Your task to perform on an android device: turn smart compose on in the gmail app Image 0: 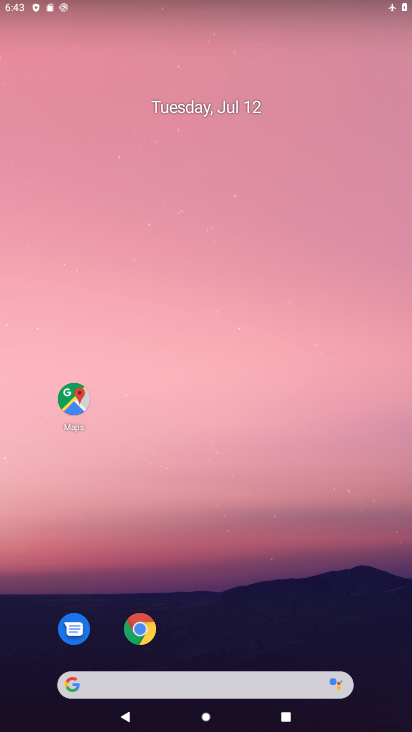
Step 0: drag from (219, 551) to (152, 80)
Your task to perform on an android device: turn smart compose on in the gmail app Image 1: 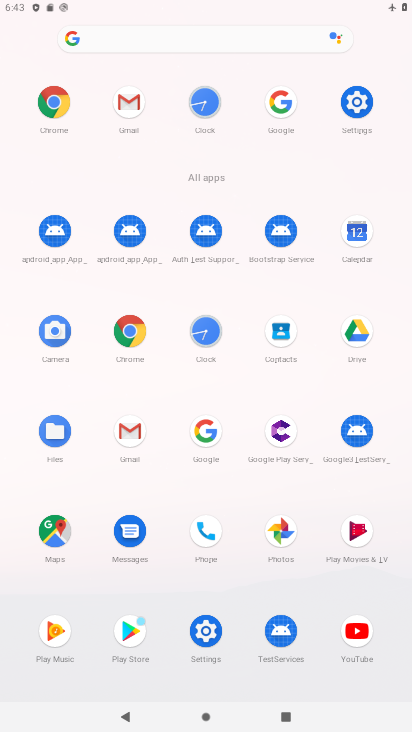
Step 1: click (125, 424)
Your task to perform on an android device: turn smart compose on in the gmail app Image 2: 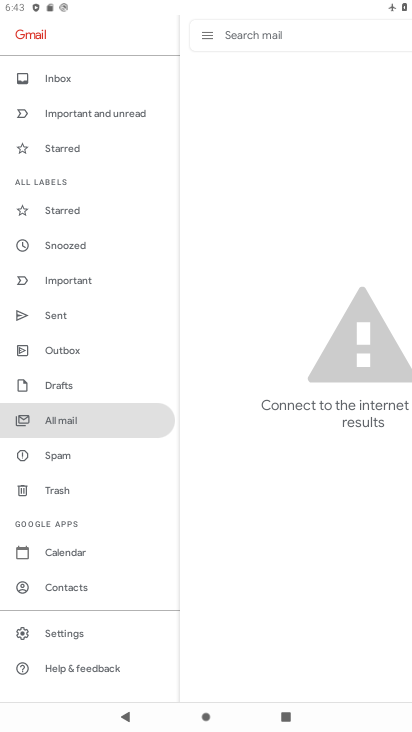
Step 2: click (69, 634)
Your task to perform on an android device: turn smart compose on in the gmail app Image 3: 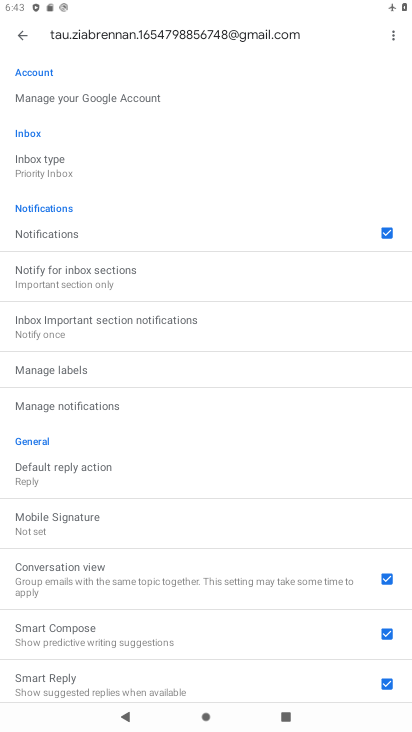
Step 3: task complete